Your task to perform on an android device: Go to location settings Image 0: 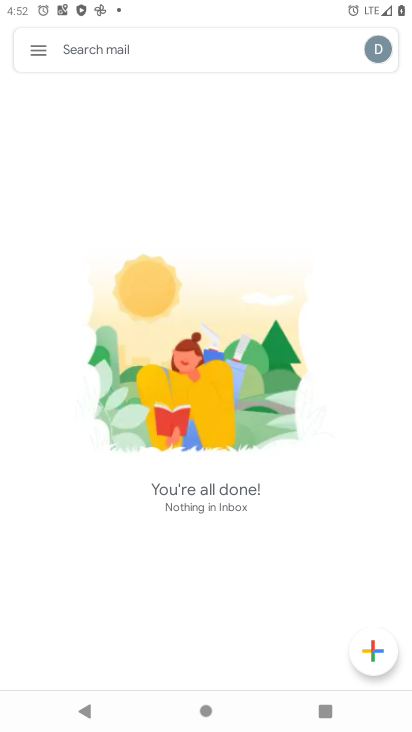
Step 0: press home button
Your task to perform on an android device: Go to location settings Image 1: 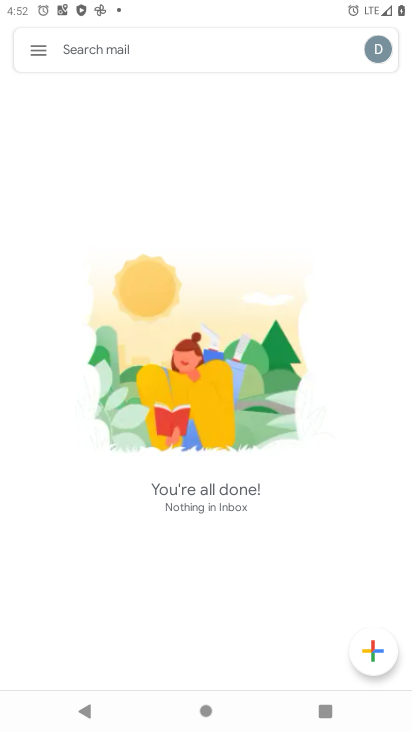
Step 1: press home button
Your task to perform on an android device: Go to location settings Image 2: 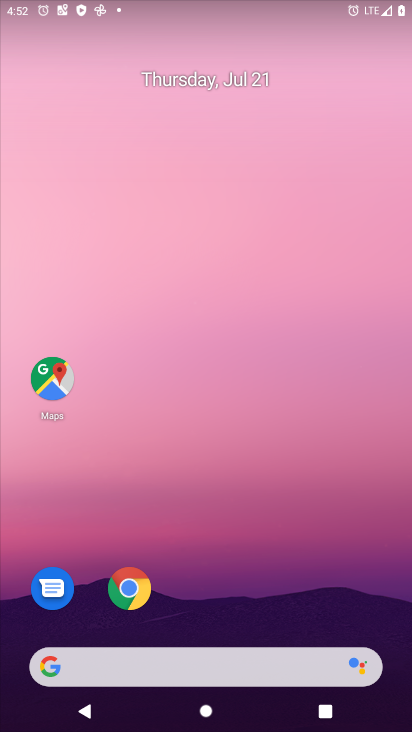
Step 2: drag from (209, 576) to (286, 180)
Your task to perform on an android device: Go to location settings Image 3: 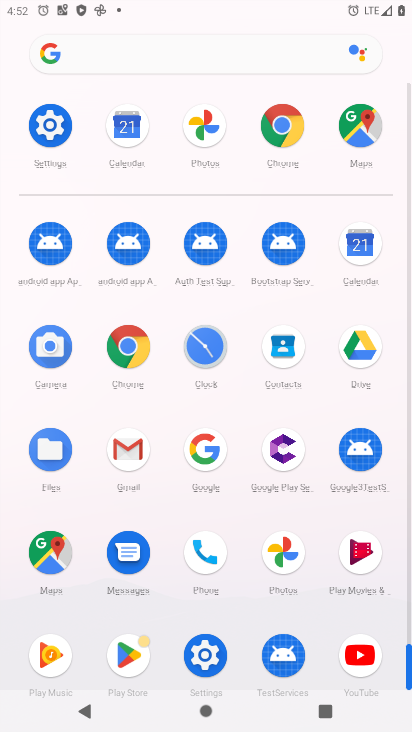
Step 3: click (218, 665)
Your task to perform on an android device: Go to location settings Image 4: 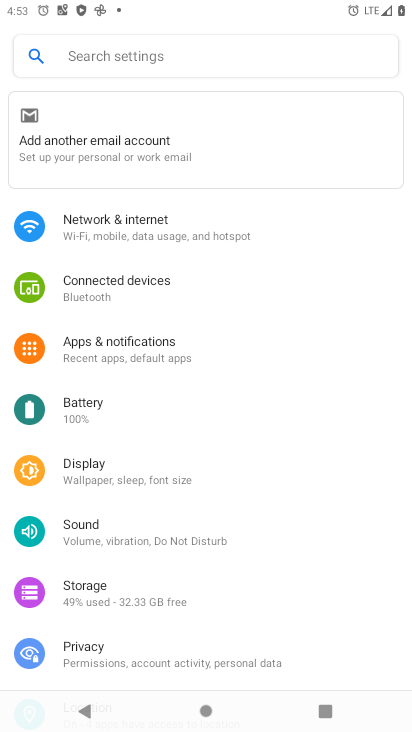
Step 4: drag from (147, 600) to (169, 261)
Your task to perform on an android device: Go to location settings Image 5: 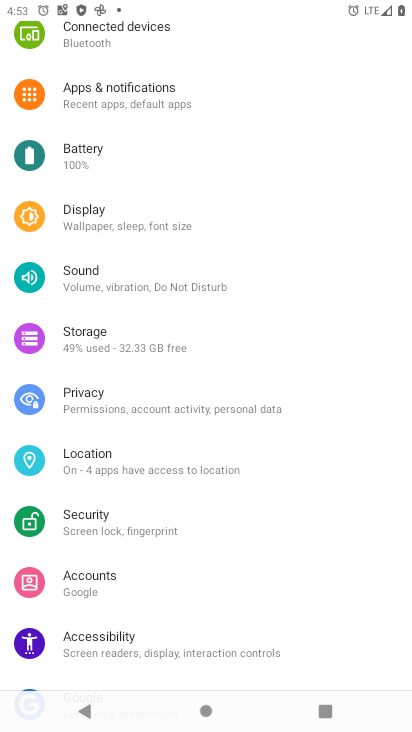
Step 5: click (119, 466)
Your task to perform on an android device: Go to location settings Image 6: 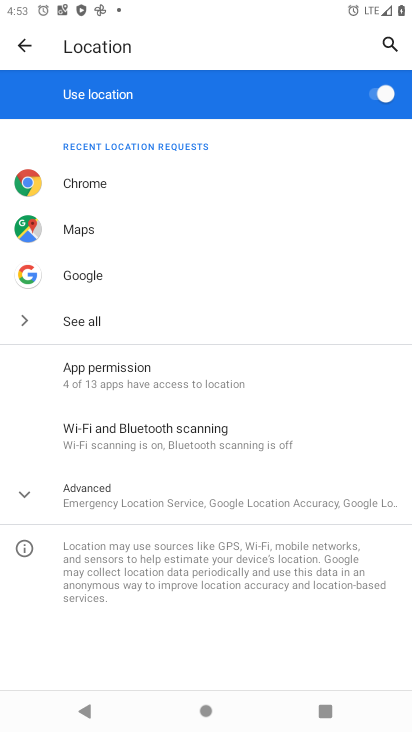
Step 6: task complete